Your task to perform on an android device: What's the weather like in Mexico City? Image 0: 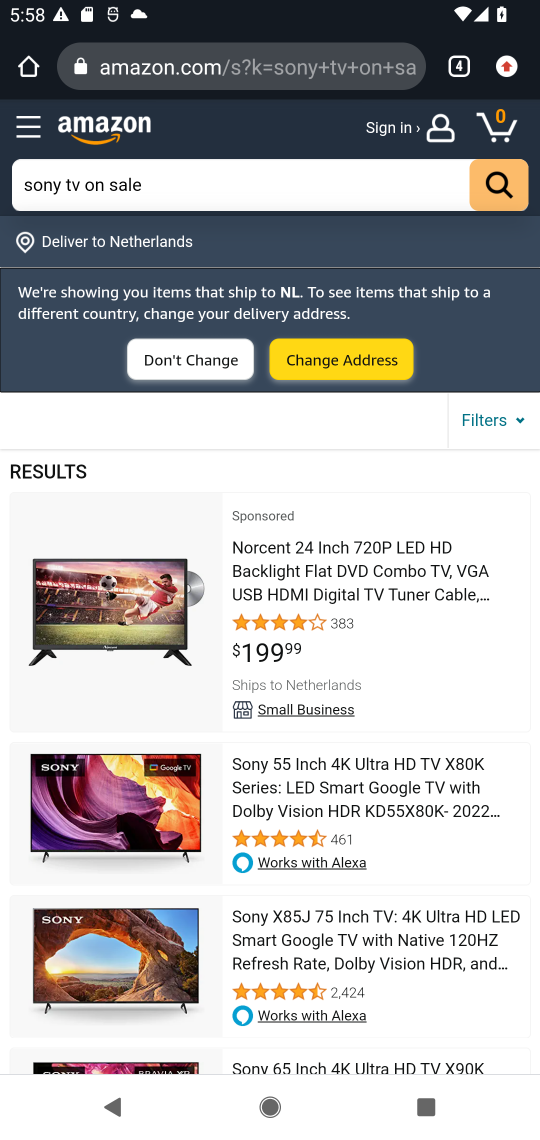
Step 0: click (282, 66)
Your task to perform on an android device: What's the weather like in Mexico City? Image 1: 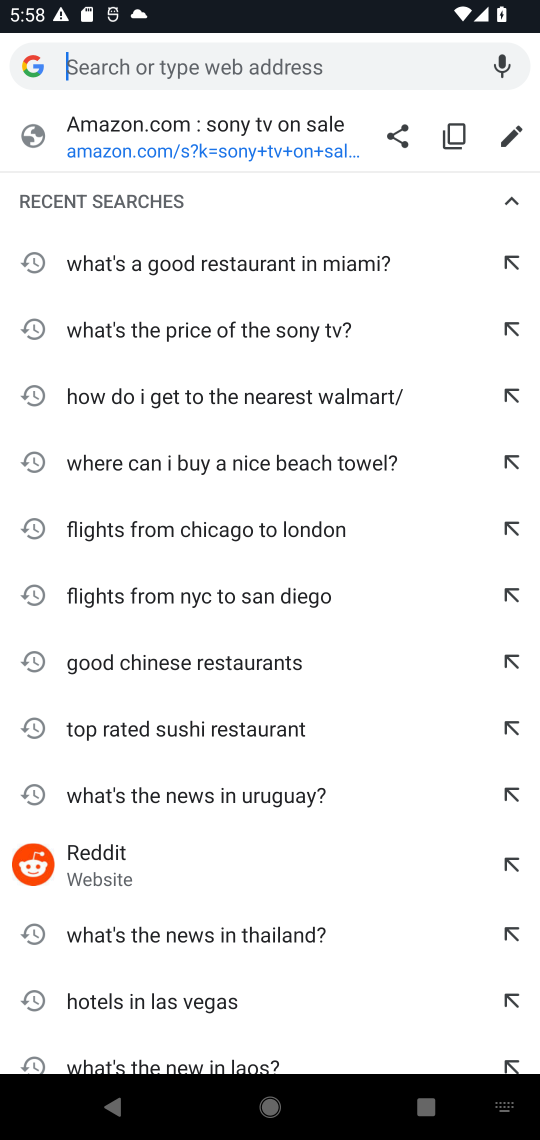
Step 1: type "What's the weather like in Mexico City?"
Your task to perform on an android device: What's the weather like in Mexico City? Image 2: 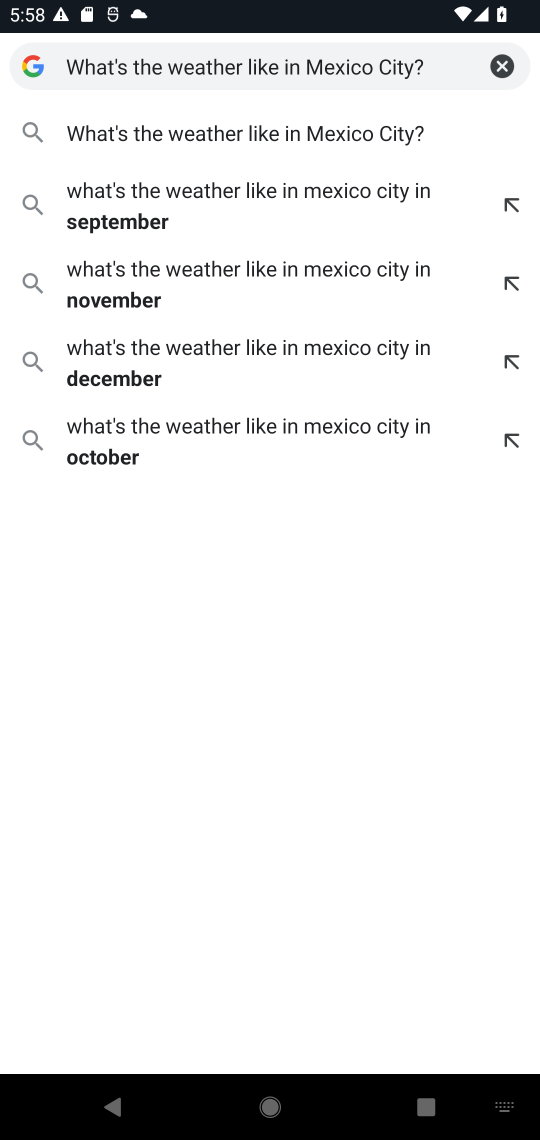
Step 2: press enter
Your task to perform on an android device: What's the weather like in Mexico City? Image 3: 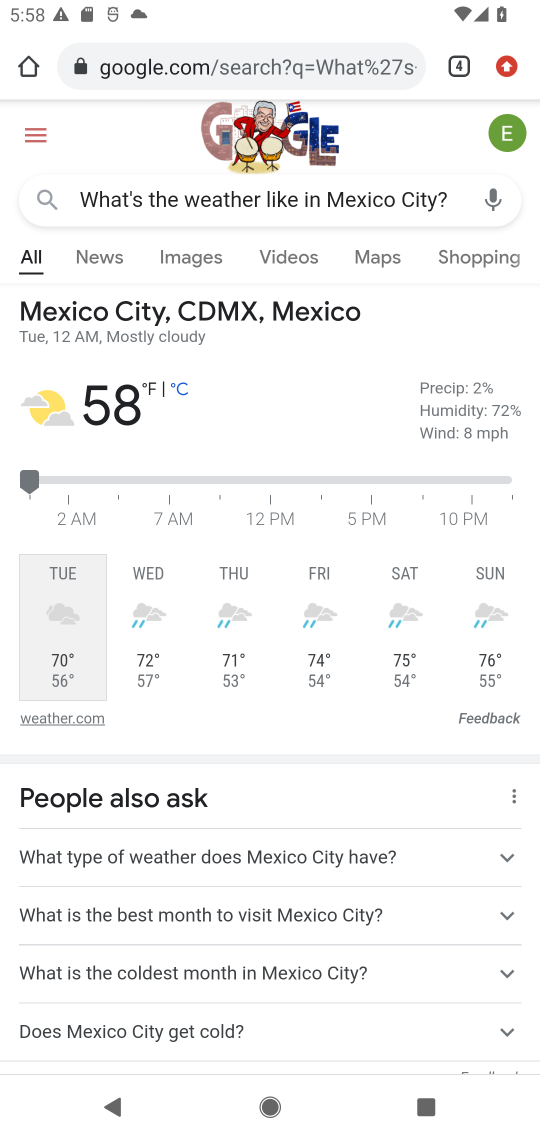
Step 3: task complete